Your task to perform on an android device: When is my next meeting? Image 0: 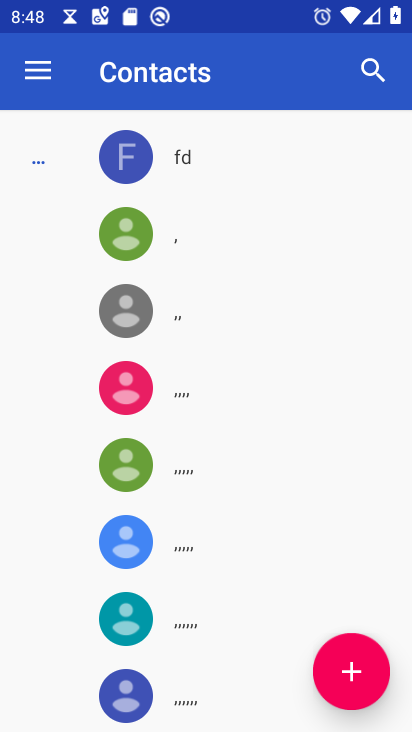
Step 0: press home button
Your task to perform on an android device: When is my next meeting? Image 1: 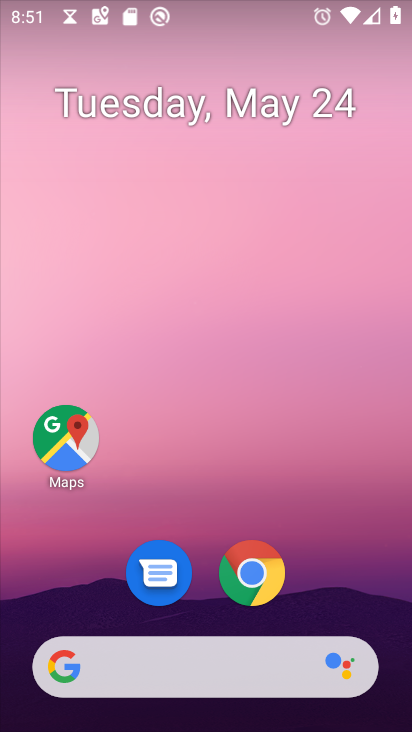
Step 1: drag from (374, 599) to (6, 161)
Your task to perform on an android device: When is my next meeting? Image 2: 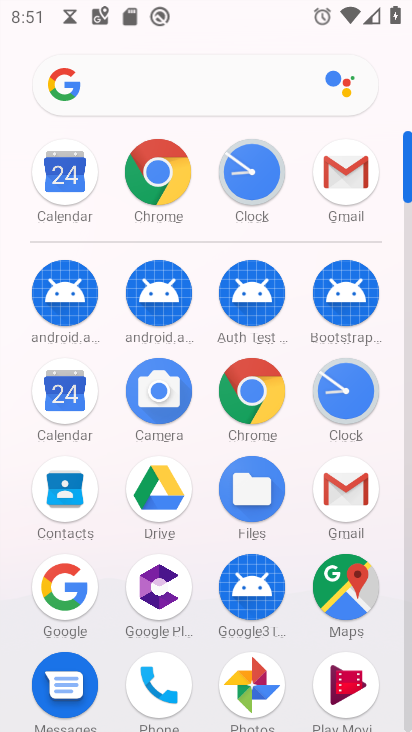
Step 2: click (57, 179)
Your task to perform on an android device: When is my next meeting? Image 3: 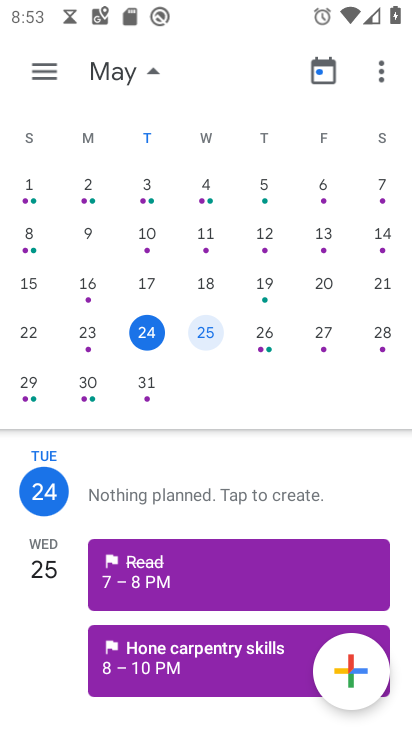
Step 3: click (270, 354)
Your task to perform on an android device: When is my next meeting? Image 4: 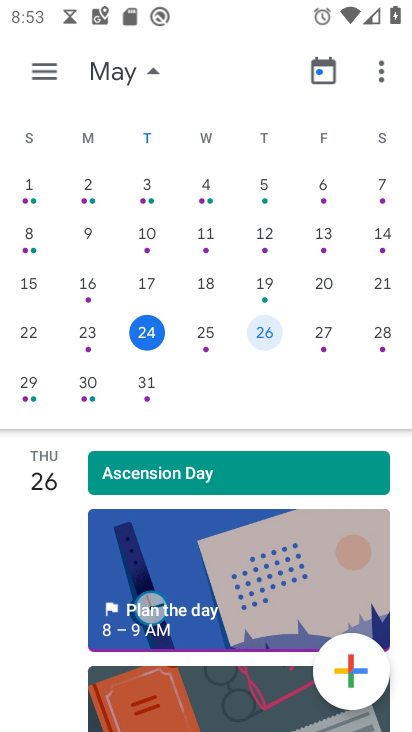
Step 4: task complete